Your task to perform on an android device: turn smart compose on in the gmail app Image 0: 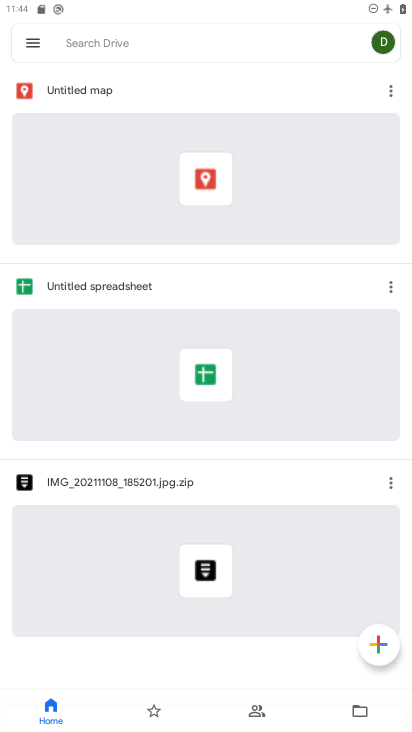
Step 0: press home button
Your task to perform on an android device: turn smart compose on in the gmail app Image 1: 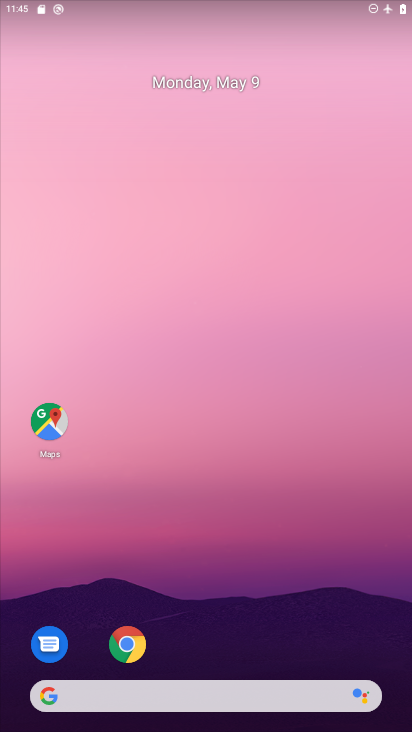
Step 1: drag from (236, 614) to (213, 108)
Your task to perform on an android device: turn smart compose on in the gmail app Image 2: 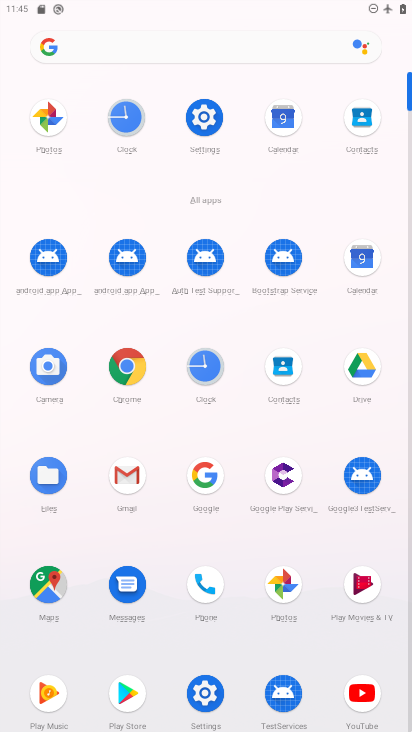
Step 2: click (128, 490)
Your task to perform on an android device: turn smart compose on in the gmail app Image 3: 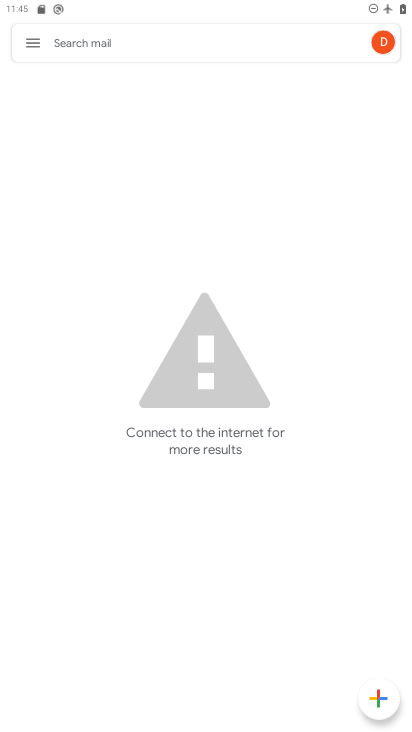
Step 3: click (37, 43)
Your task to perform on an android device: turn smart compose on in the gmail app Image 4: 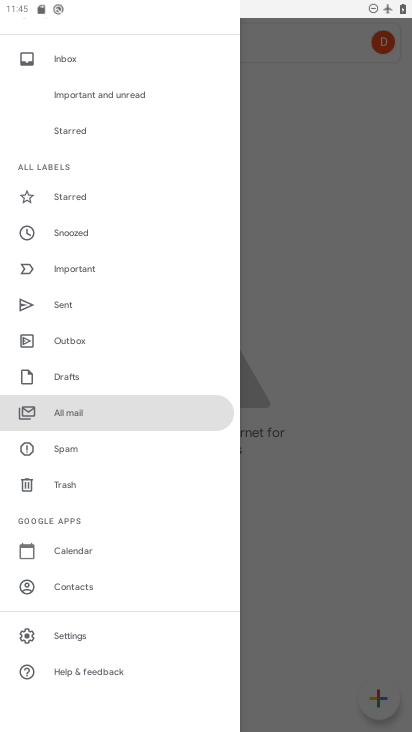
Step 4: click (108, 636)
Your task to perform on an android device: turn smart compose on in the gmail app Image 5: 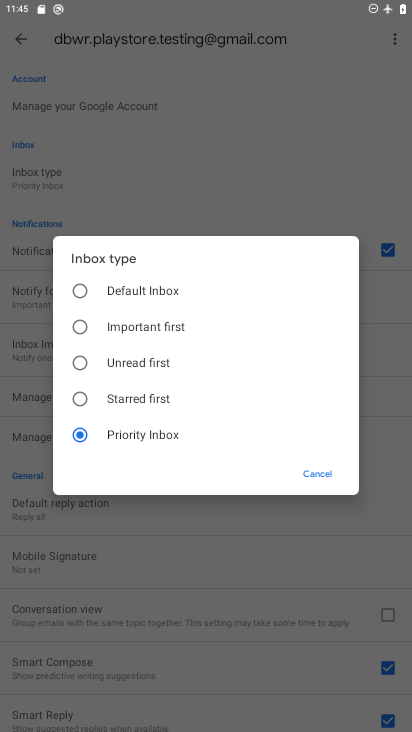
Step 5: click (305, 467)
Your task to perform on an android device: turn smart compose on in the gmail app Image 6: 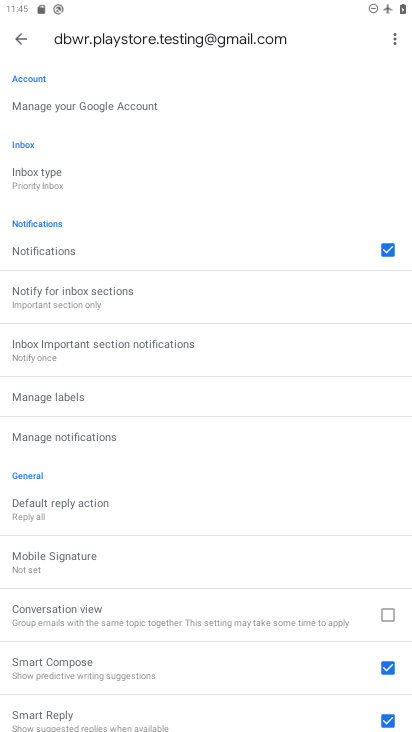
Step 6: task complete